Your task to perform on an android device: move a message to another label in the gmail app Image 0: 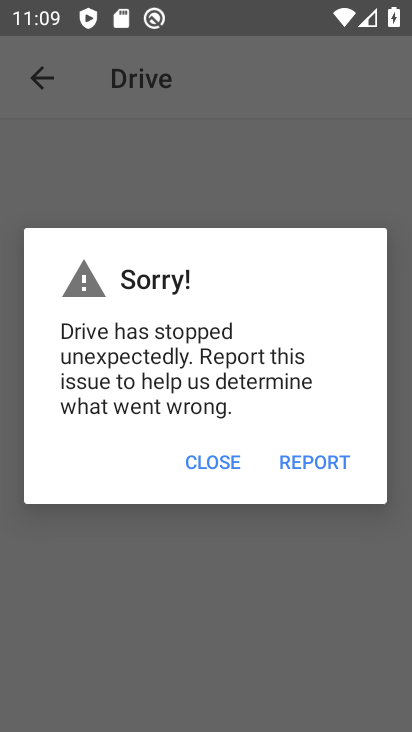
Step 0: click (208, 460)
Your task to perform on an android device: move a message to another label in the gmail app Image 1: 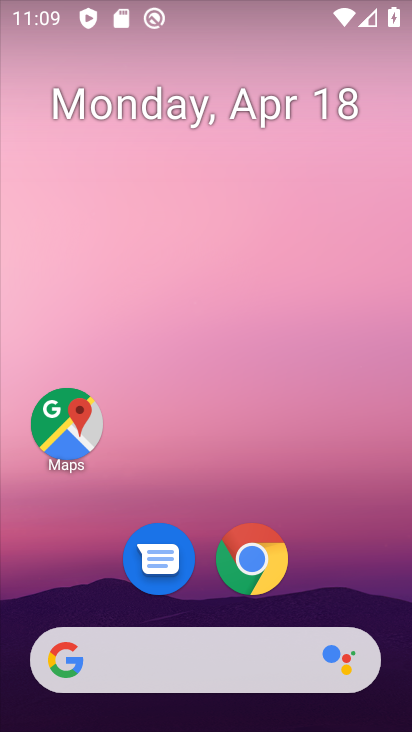
Step 1: drag from (298, 619) to (343, 27)
Your task to perform on an android device: move a message to another label in the gmail app Image 2: 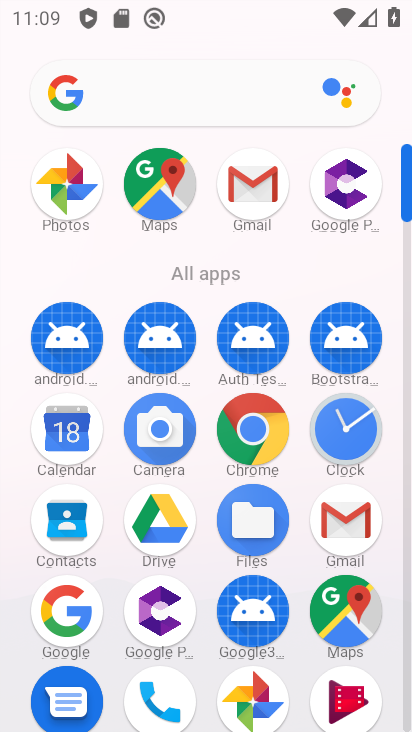
Step 2: click (337, 510)
Your task to perform on an android device: move a message to another label in the gmail app Image 3: 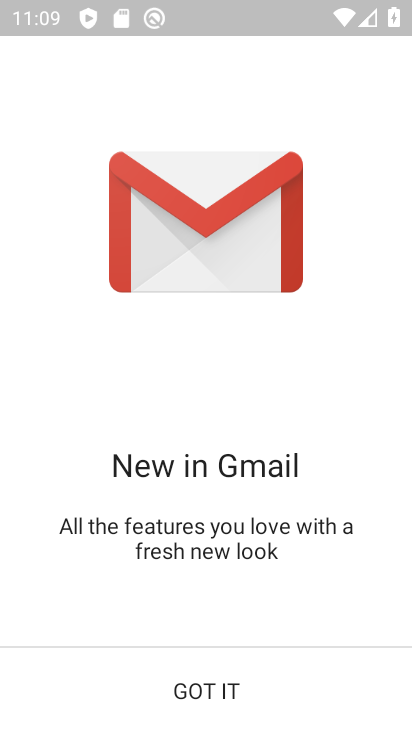
Step 3: click (247, 670)
Your task to perform on an android device: move a message to another label in the gmail app Image 4: 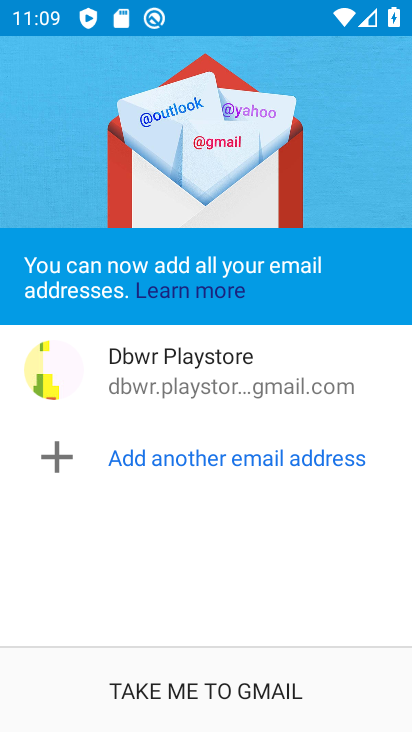
Step 4: click (306, 696)
Your task to perform on an android device: move a message to another label in the gmail app Image 5: 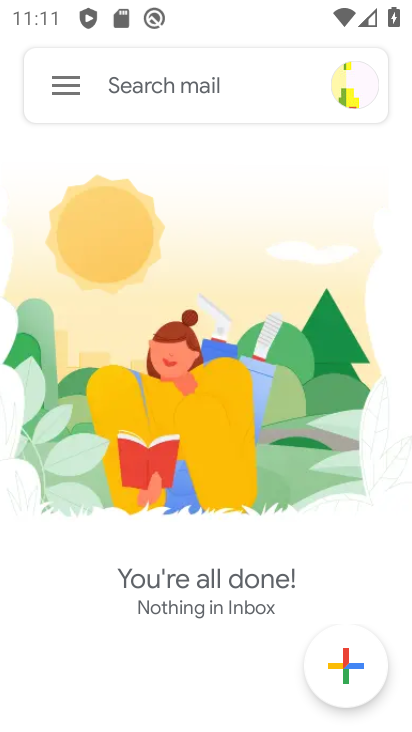
Step 5: task complete